Your task to perform on an android device: Open network settings Image 0: 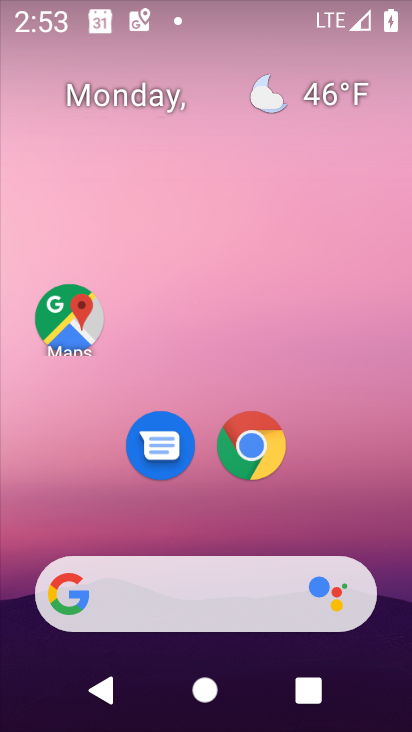
Step 0: drag from (310, 466) to (285, 119)
Your task to perform on an android device: Open network settings Image 1: 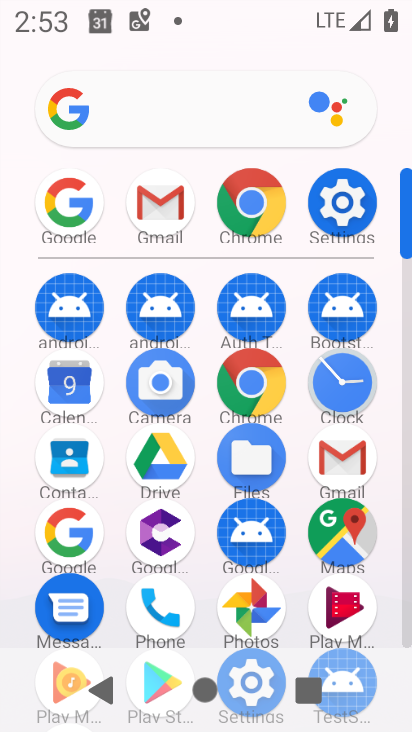
Step 1: click (339, 219)
Your task to perform on an android device: Open network settings Image 2: 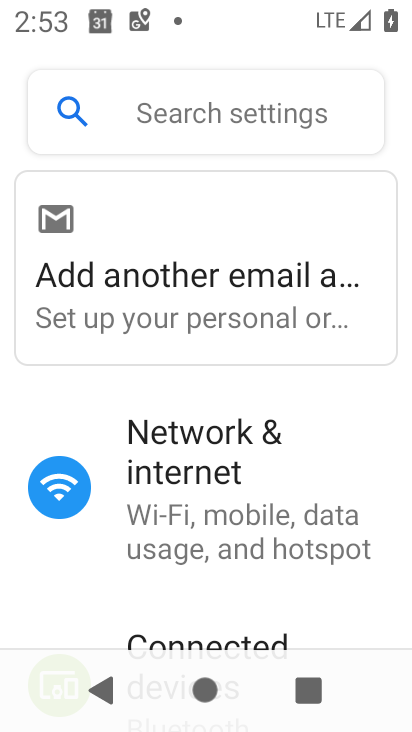
Step 2: click (236, 527)
Your task to perform on an android device: Open network settings Image 3: 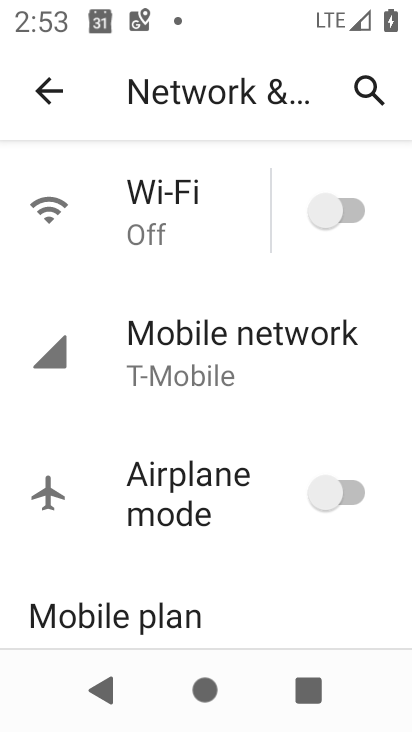
Step 3: task complete